Your task to perform on an android device: toggle wifi Image 0: 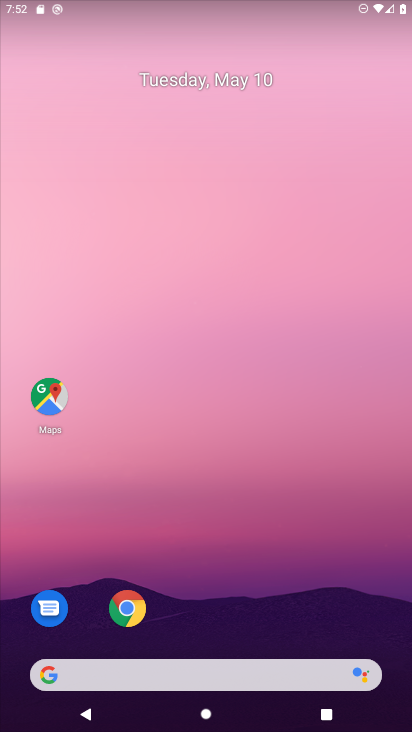
Step 0: click (222, 310)
Your task to perform on an android device: toggle wifi Image 1: 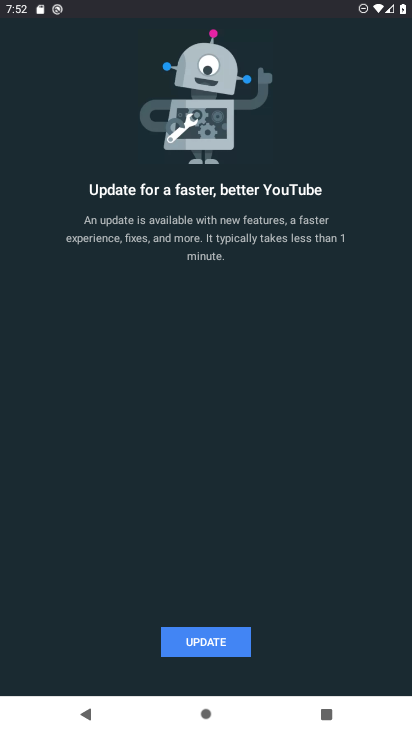
Step 1: press home button
Your task to perform on an android device: toggle wifi Image 2: 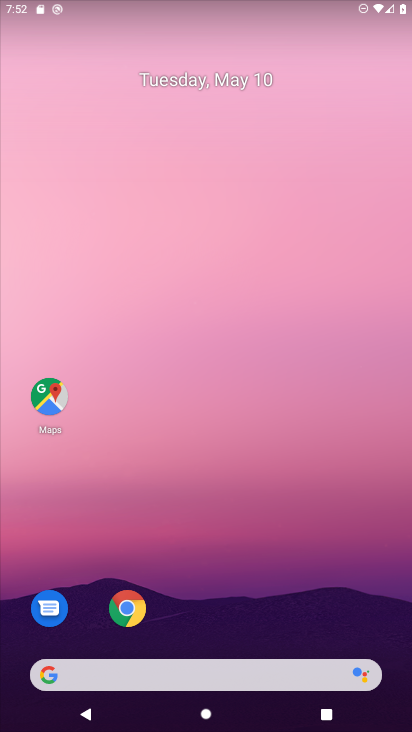
Step 2: drag from (273, 597) to (246, 252)
Your task to perform on an android device: toggle wifi Image 3: 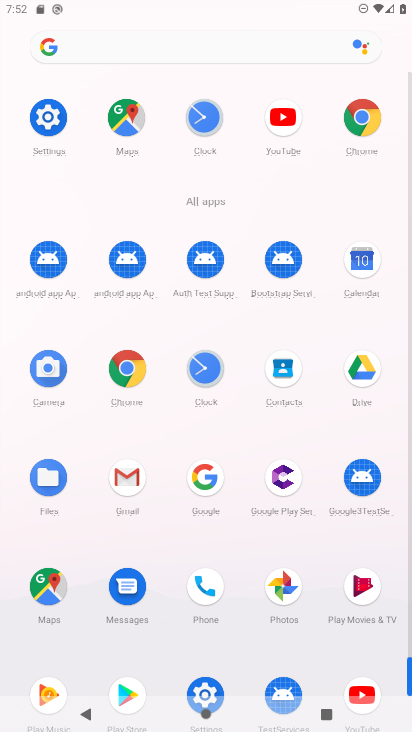
Step 3: click (42, 116)
Your task to perform on an android device: toggle wifi Image 4: 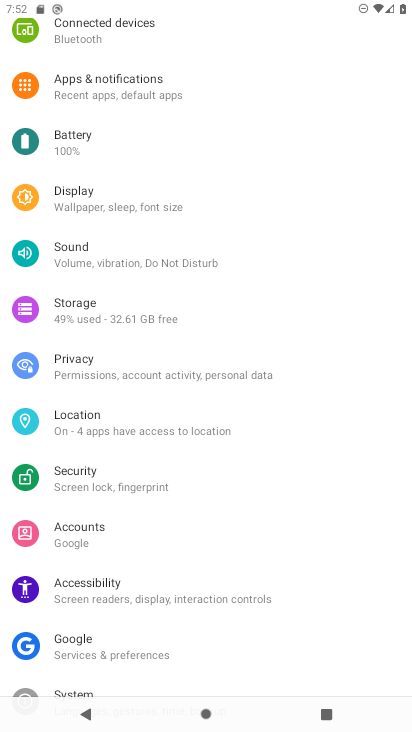
Step 4: drag from (123, 124) to (177, 559)
Your task to perform on an android device: toggle wifi Image 5: 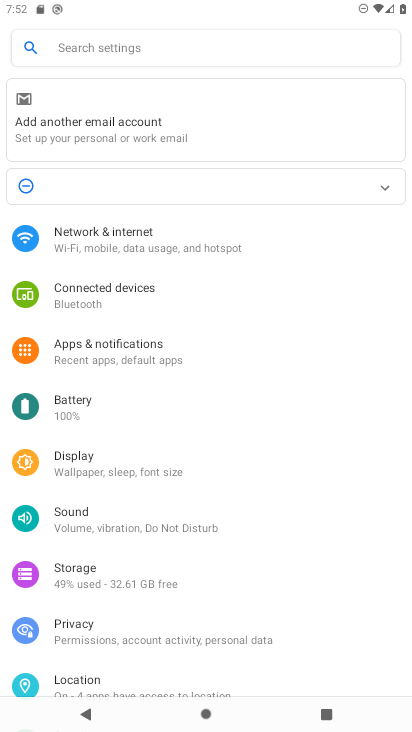
Step 5: click (140, 232)
Your task to perform on an android device: toggle wifi Image 6: 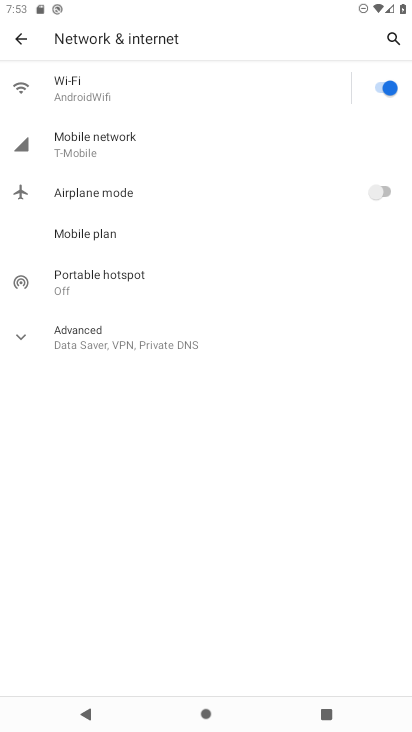
Step 6: click (378, 85)
Your task to perform on an android device: toggle wifi Image 7: 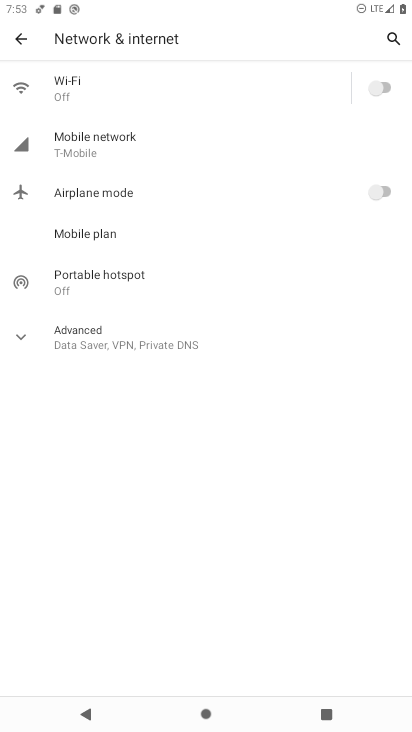
Step 7: task complete